Your task to perform on an android device: stop showing notifications on the lock screen Image 0: 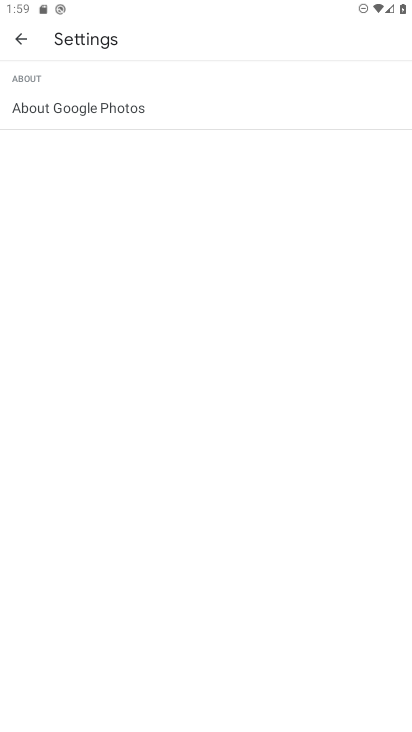
Step 0: press home button
Your task to perform on an android device: stop showing notifications on the lock screen Image 1: 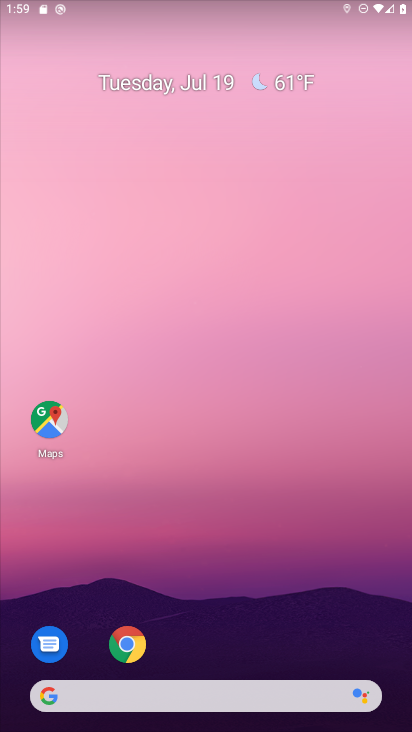
Step 1: drag from (248, 673) to (207, 109)
Your task to perform on an android device: stop showing notifications on the lock screen Image 2: 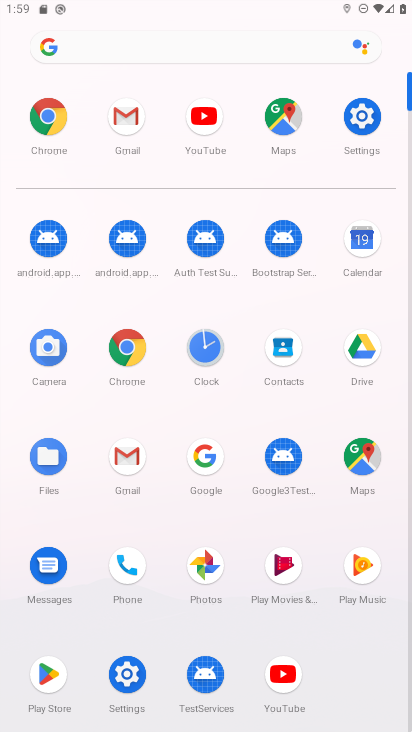
Step 2: click (353, 122)
Your task to perform on an android device: stop showing notifications on the lock screen Image 3: 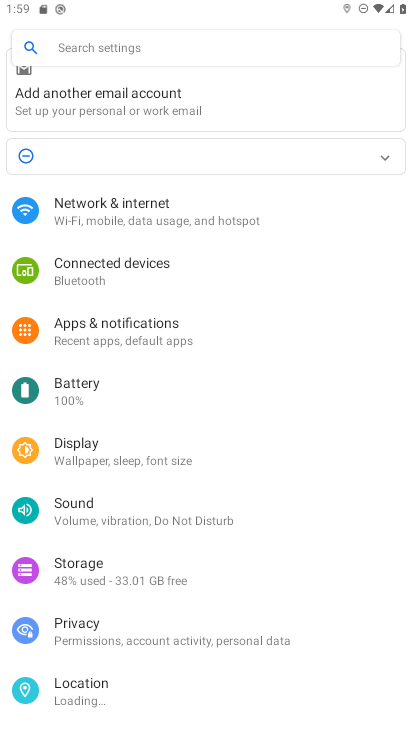
Step 3: click (121, 320)
Your task to perform on an android device: stop showing notifications on the lock screen Image 4: 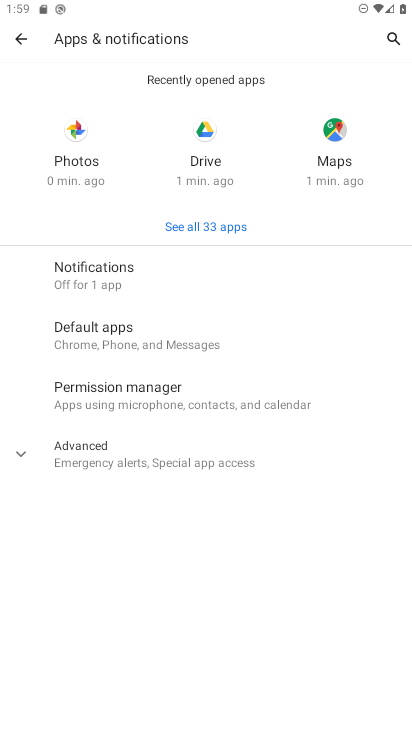
Step 4: click (143, 463)
Your task to perform on an android device: stop showing notifications on the lock screen Image 5: 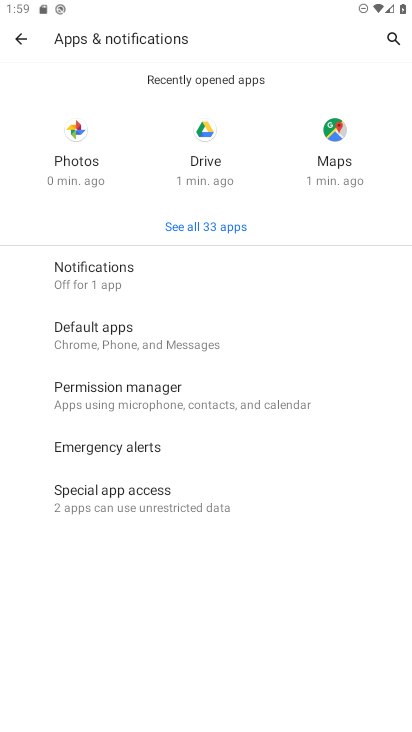
Step 5: click (90, 267)
Your task to perform on an android device: stop showing notifications on the lock screen Image 6: 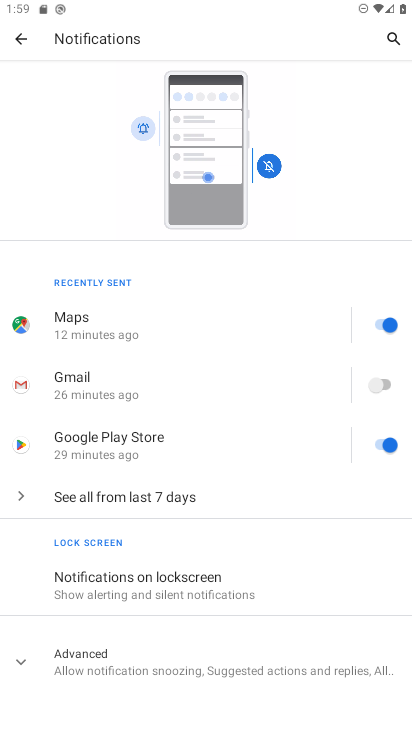
Step 6: click (200, 585)
Your task to perform on an android device: stop showing notifications on the lock screen Image 7: 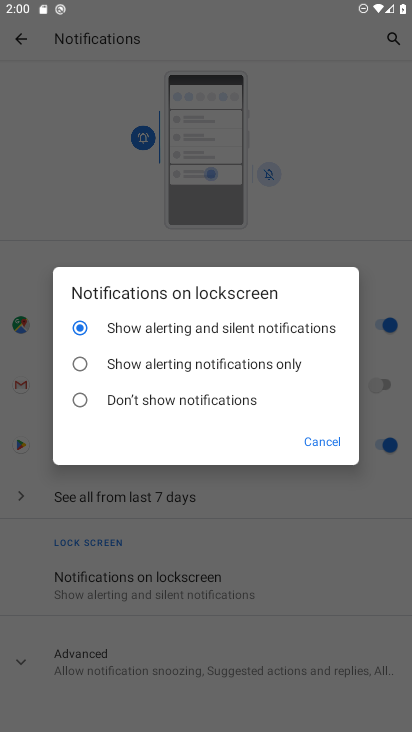
Step 7: click (143, 404)
Your task to perform on an android device: stop showing notifications on the lock screen Image 8: 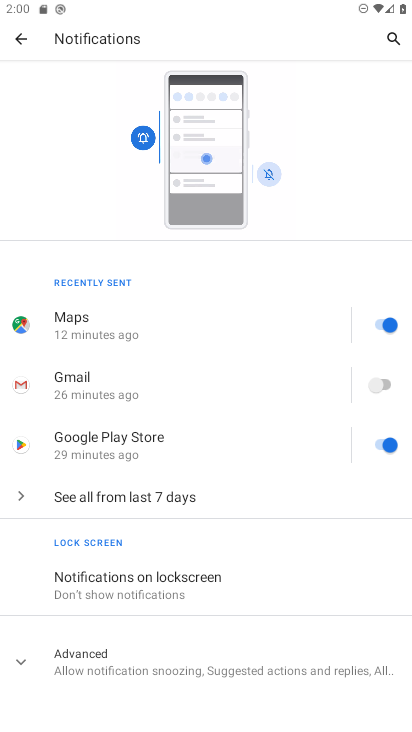
Step 8: task complete